Your task to perform on an android device: turn on improve location accuracy Image 0: 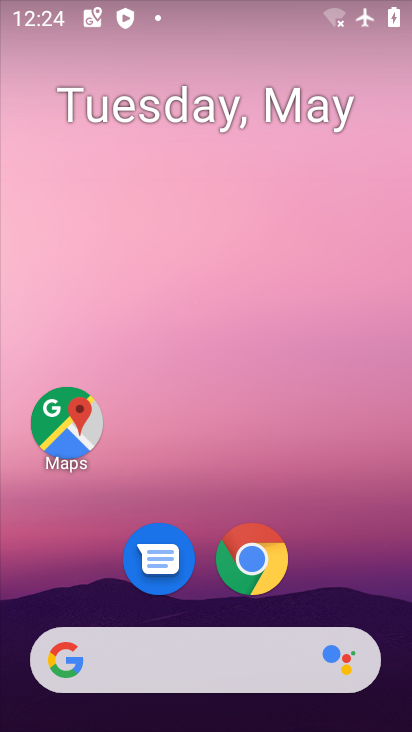
Step 0: drag from (359, 581) to (341, 107)
Your task to perform on an android device: turn on improve location accuracy Image 1: 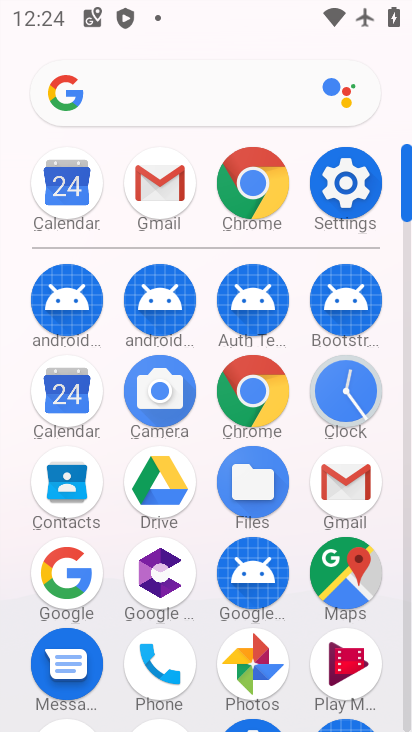
Step 1: click (346, 205)
Your task to perform on an android device: turn on improve location accuracy Image 2: 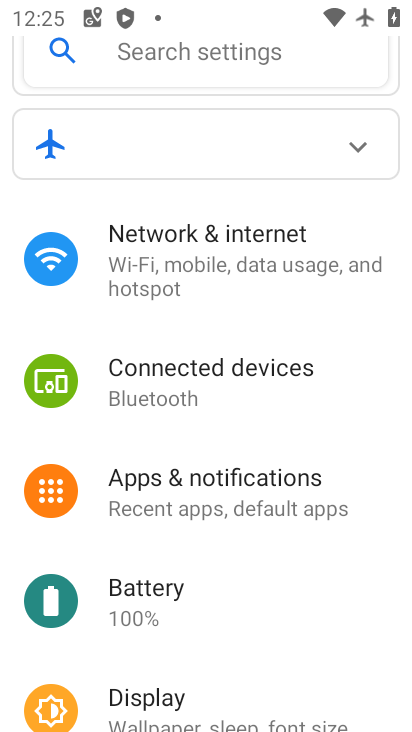
Step 2: drag from (209, 616) to (250, 199)
Your task to perform on an android device: turn on improve location accuracy Image 3: 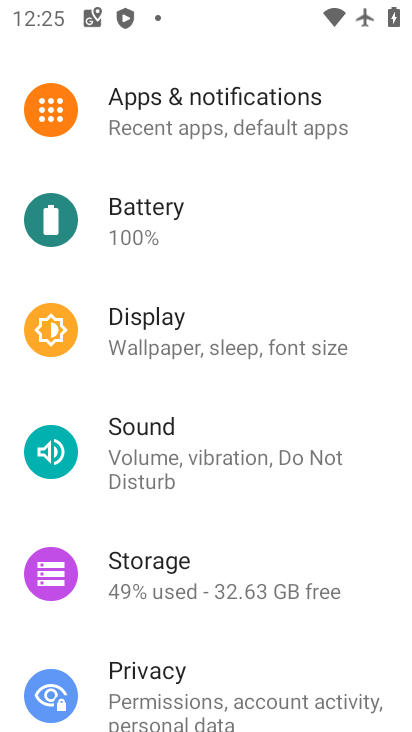
Step 3: drag from (193, 652) to (258, 402)
Your task to perform on an android device: turn on improve location accuracy Image 4: 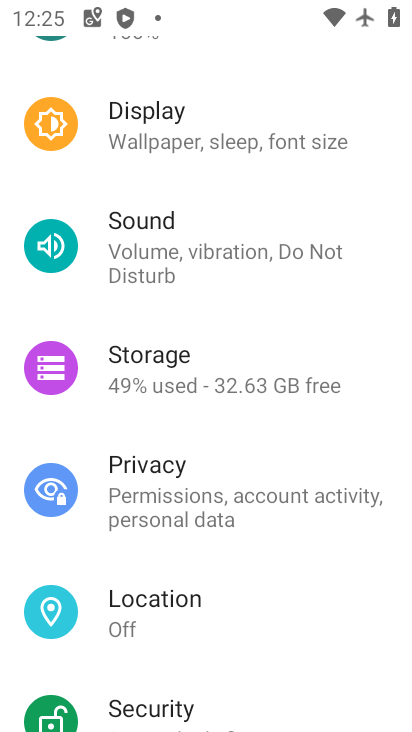
Step 4: click (211, 596)
Your task to perform on an android device: turn on improve location accuracy Image 5: 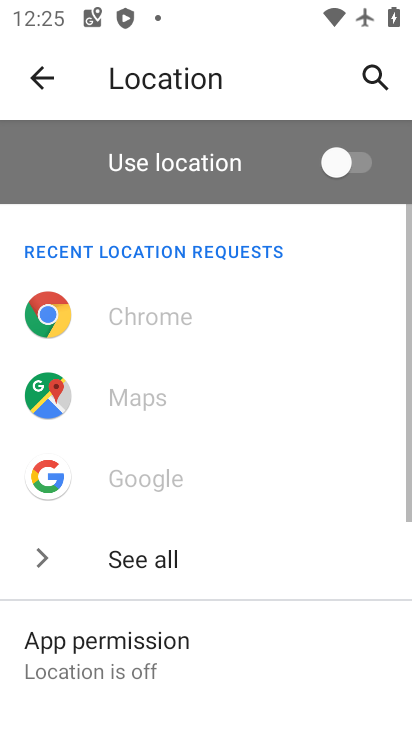
Step 5: drag from (211, 596) to (245, 164)
Your task to perform on an android device: turn on improve location accuracy Image 6: 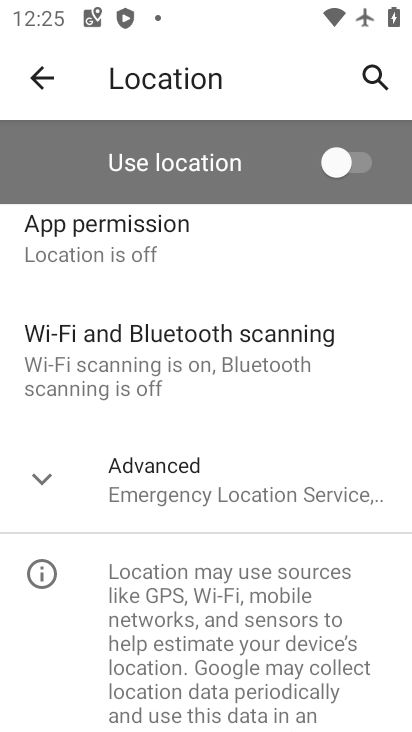
Step 6: click (252, 567)
Your task to perform on an android device: turn on improve location accuracy Image 7: 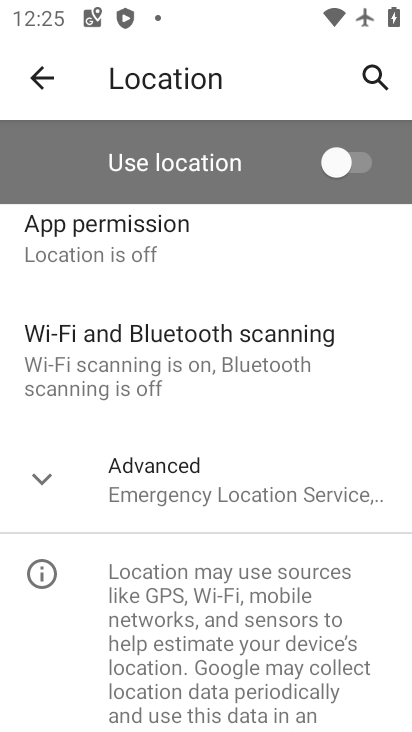
Step 7: click (252, 493)
Your task to perform on an android device: turn on improve location accuracy Image 8: 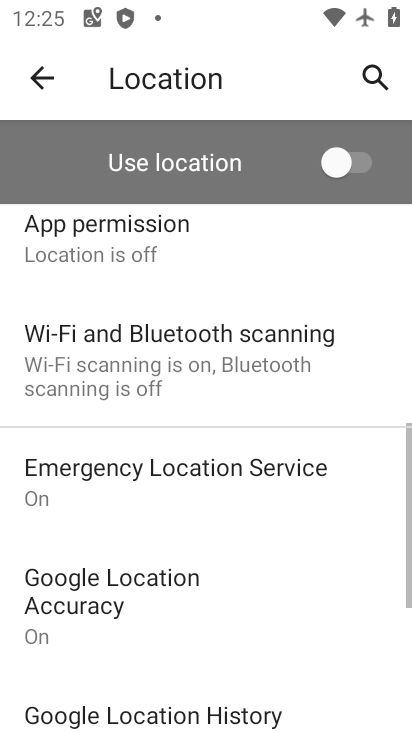
Step 8: drag from (215, 622) to (228, 408)
Your task to perform on an android device: turn on improve location accuracy Image 9: 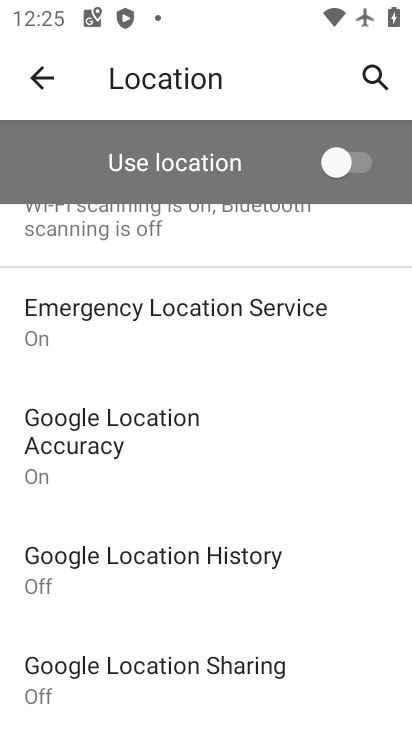
Step 9: drag from (225, 572) to (225, 478)
Your task to perform on an android device: turn on improve location accuracy Image 10: 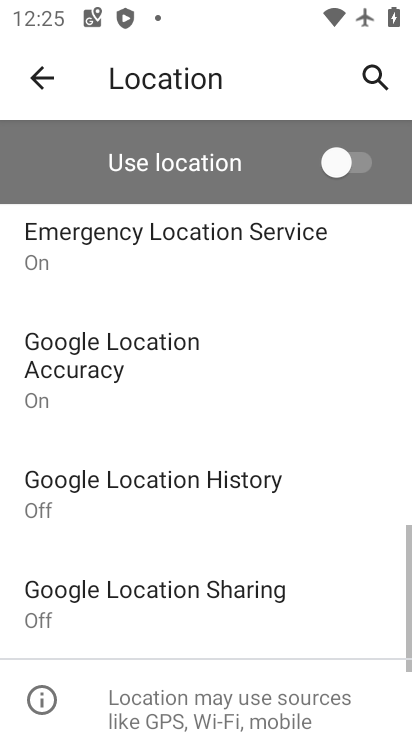
Step 10: click (172, 372)
Your task to perform on an android device: turn on improve location accuracy Image 11: 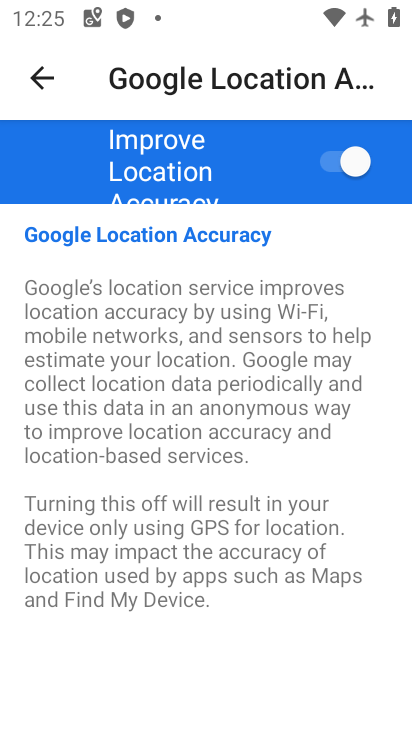
Step 11: task complete